Your task to perform on an android device: turn off sleep mode Image 0: 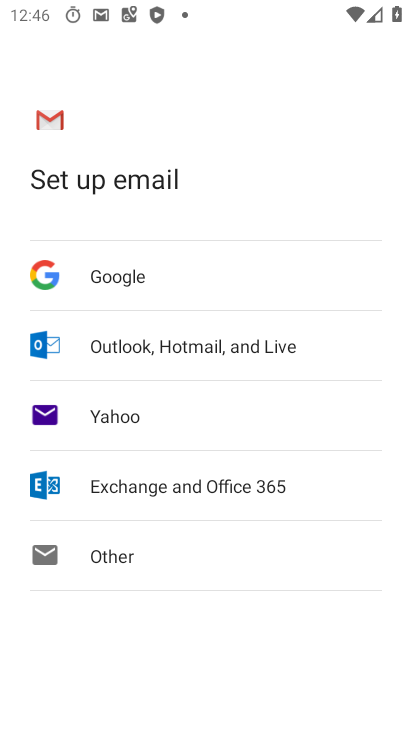
Step 0: press home button
Your task to perform on an android device: turn off sleep mode Image 1: 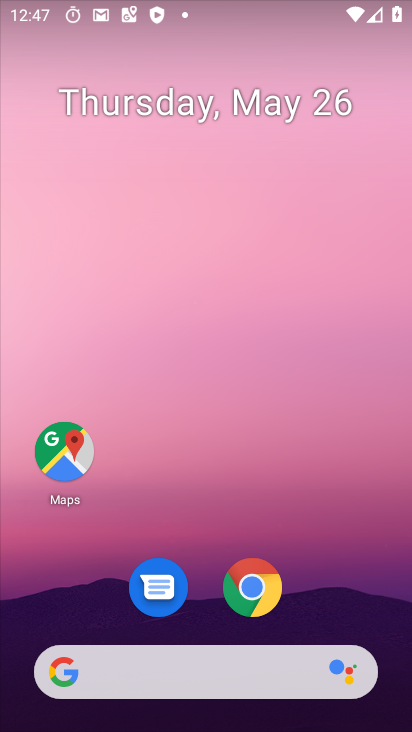
Step 1: drag from (288, 691) to (161, 21)
Your task to perform on an android device: turn off sleep mode Image 2: 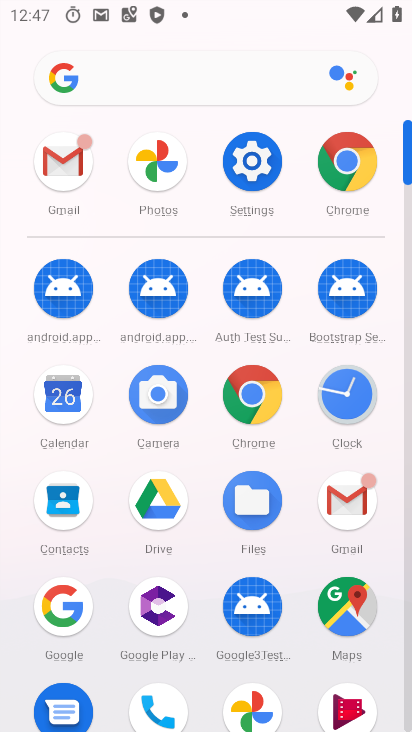
Step 2: click (256, 168)
Your task to perform on an android device: turn off sleep mode Image 3: 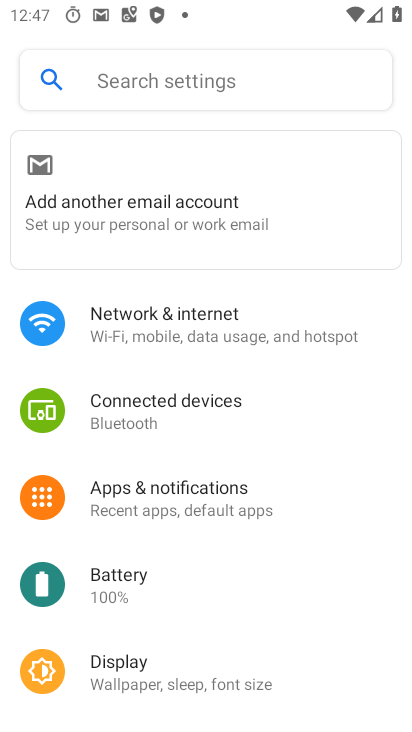
Step 3: click (164, 84)
Your task to perform on an android device: turn off sleep mode Image 4: 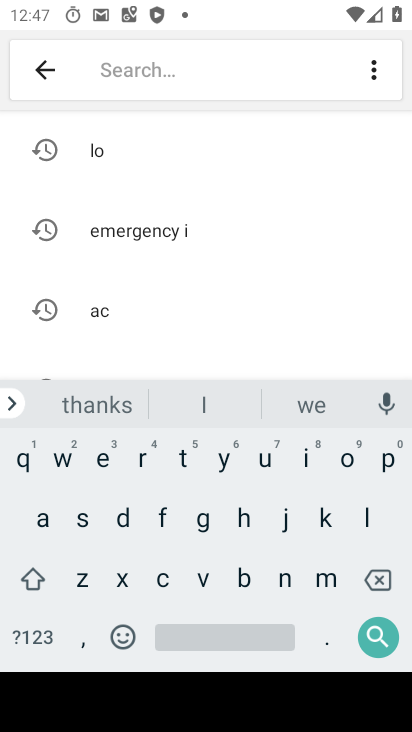
Step 4: click (88, 529)
Your task to perform on an android device: turn off sleep mode Image 5: 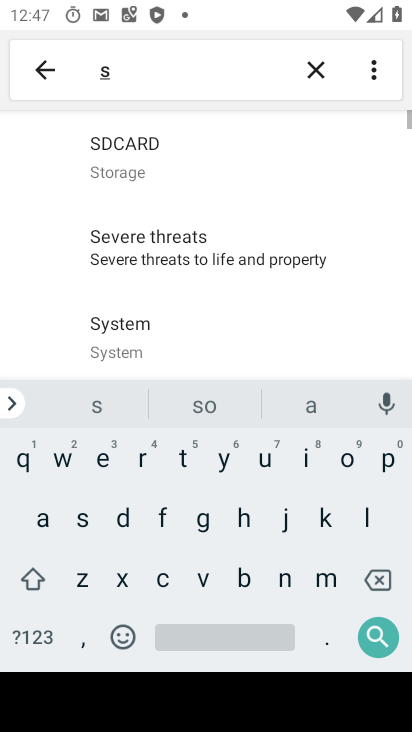
Step 5: click (359, 526)
Your task to perform on an android device: turn off sleep mode Image 6: 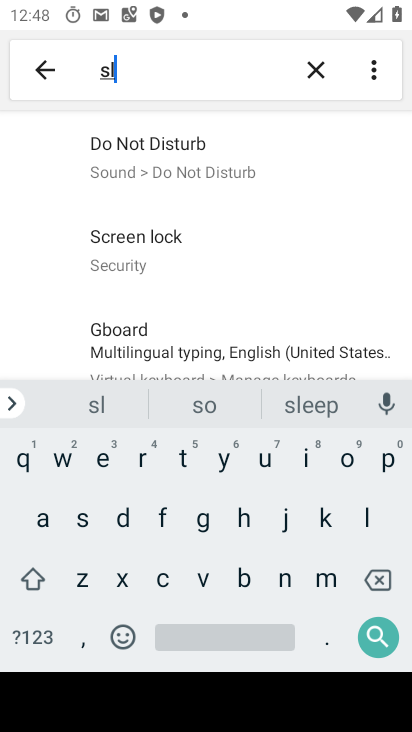
Step 6: click (189, 180)
Your task to perform on an android device: turn off sleep mode Image 7: 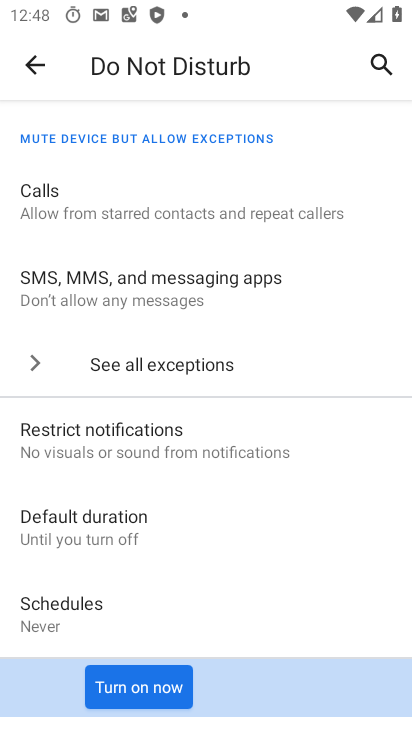
Step 7: click (157, 682)
Your task to perform on an android device: turn off sleep mode Image 8: 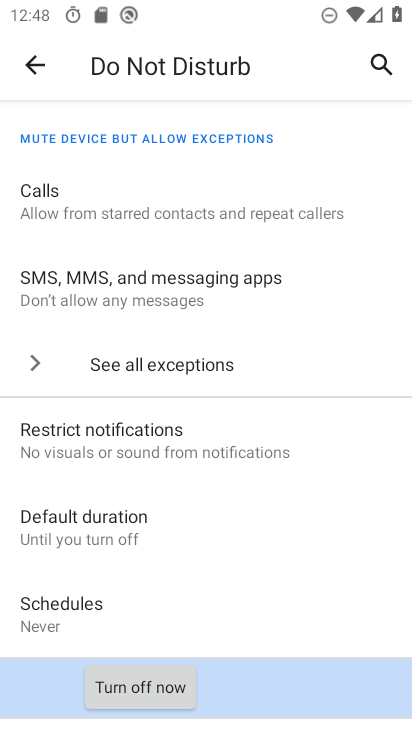
Step 8: click (151, 681)
Your task to perform on an android device: turn off sleep mode Image 9: 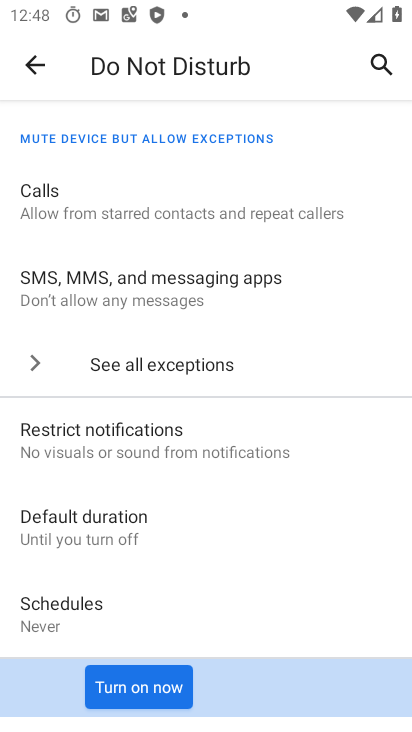
Step 9: task complete